Your task to perform on an android device: turn off translation in the chrome app Image 0: 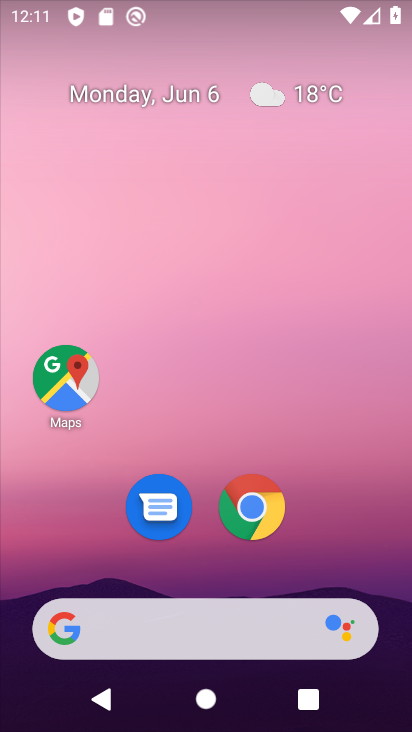
Step 0: click (257, 514)
Your task to perform on an android device: turn off translation in the chrome app Image 1: 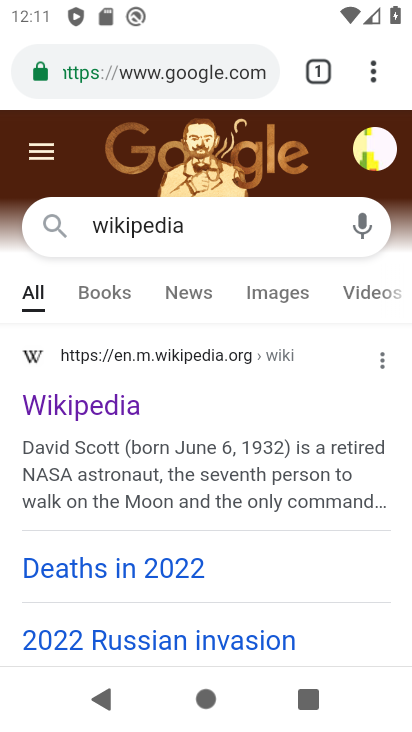
Step 1: click (377, 71)
Your task to perform on an android device: turn off translation in the chrome app Image 2: 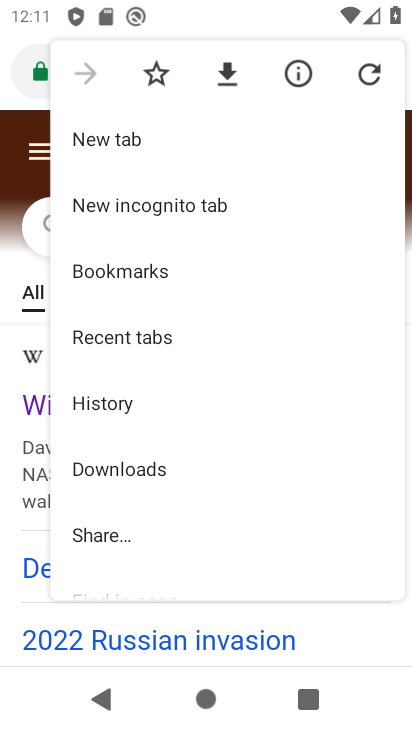
Step 2: drag from (171, 539) to (195, 258)
Your task to perform on an android device: turn off translation in the chrome app Image 3: 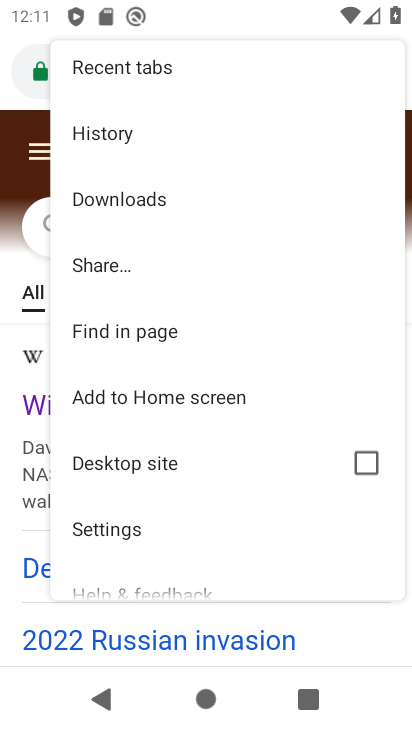
Step 3: click (126, 524)
Your task to perform on an android device: turn off translation in the chrome app Image 4: 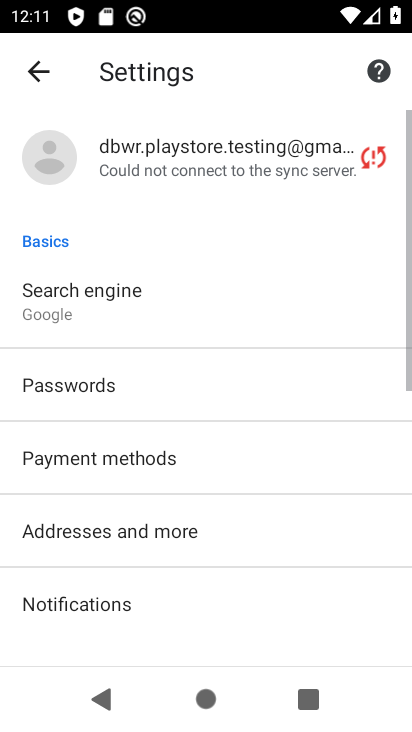
Step 4: drag from (163, 571) to (210, 259)
Your task to perform on an android device: turn off translation in the chrome app Image 5: 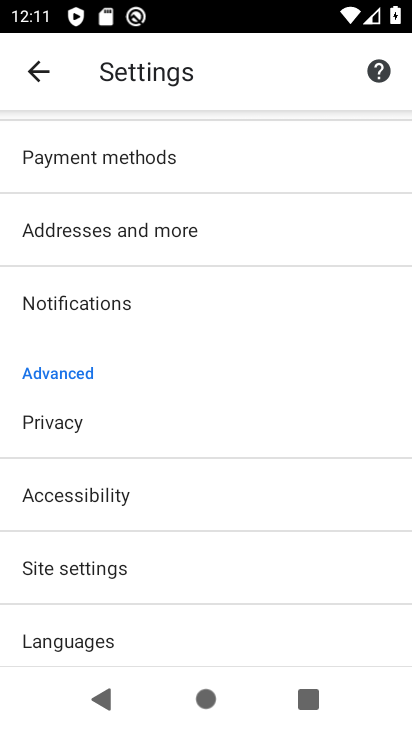
Step 5: click (98, 634)
Your task to perform on an android device: turn off translation in the chrome app Image 6: 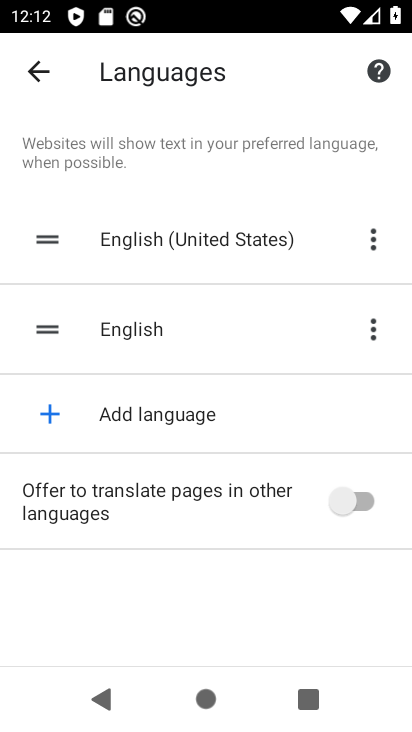
Step 6: task complete